Your task to perform on an android device: uninstall "Google Home" Image 0: 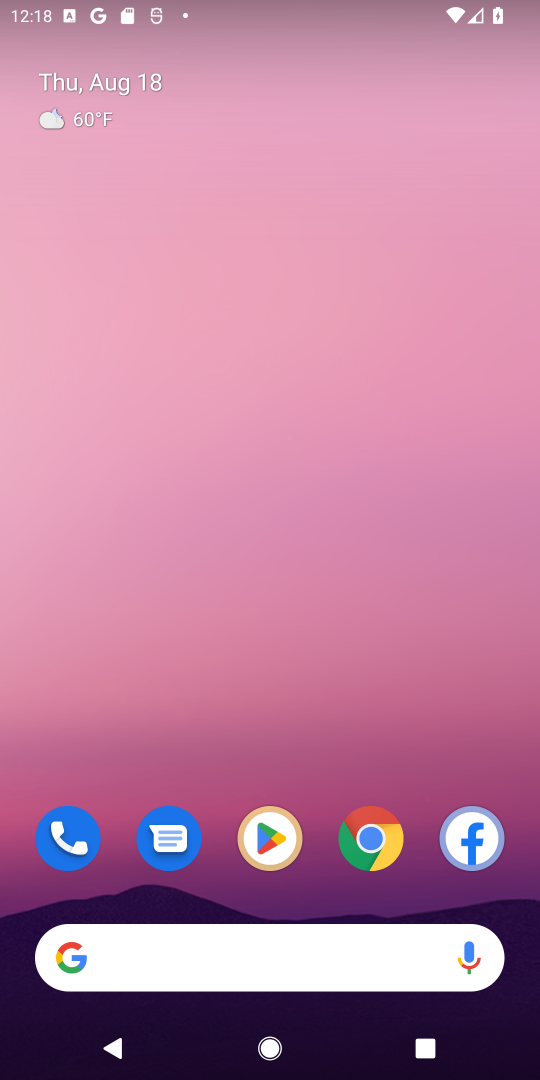
Step 0: click (271, 830)
Your task to perform on an android device: uninstall "Google Home" Image 1: 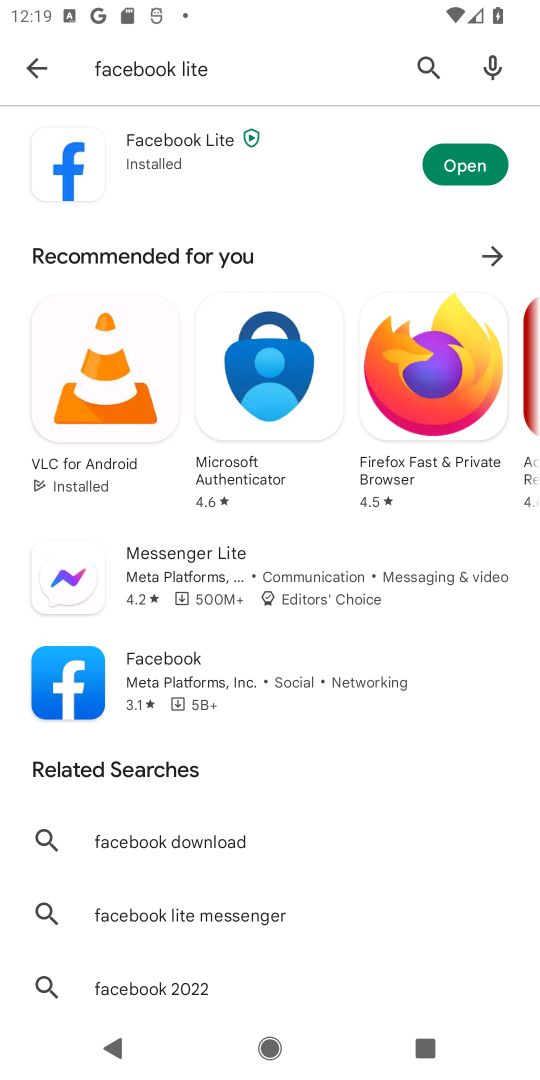
Step 1: click (420, 75)
Your task to perform on an android device: uninstall "Google Home" Image 2: 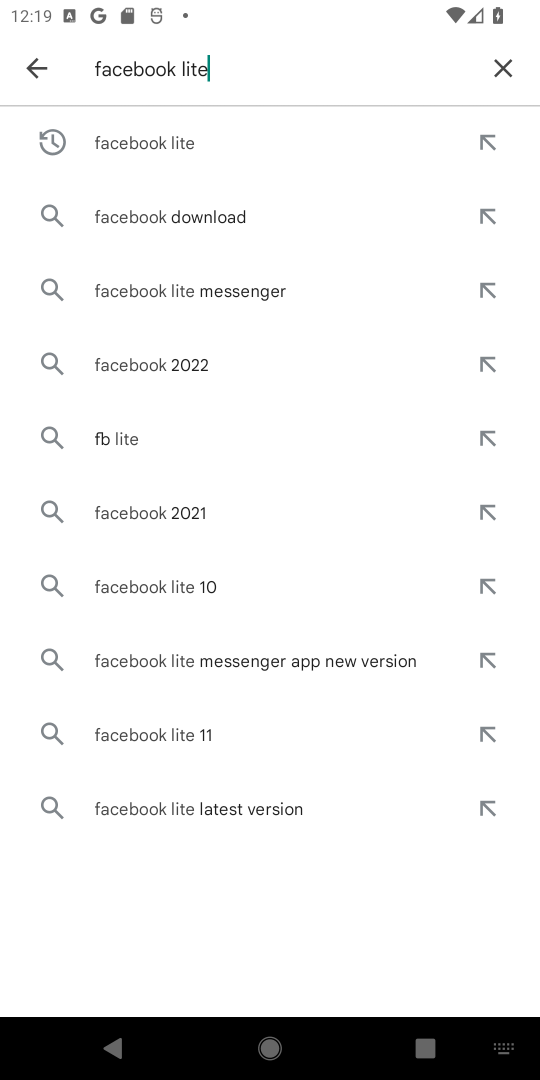
Step 2: click (491, 67)
Your task to perform on an android device: uninstall "Google Home" Image 3: 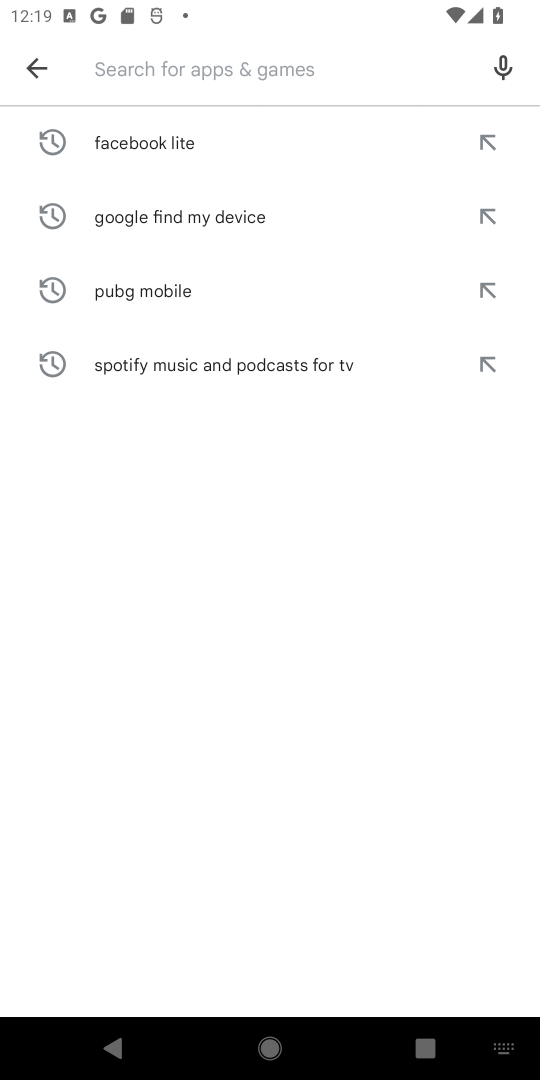
Step 3: type "Google Home"
Your task to perform on an android device: uninstall "Google Home" Image 4: 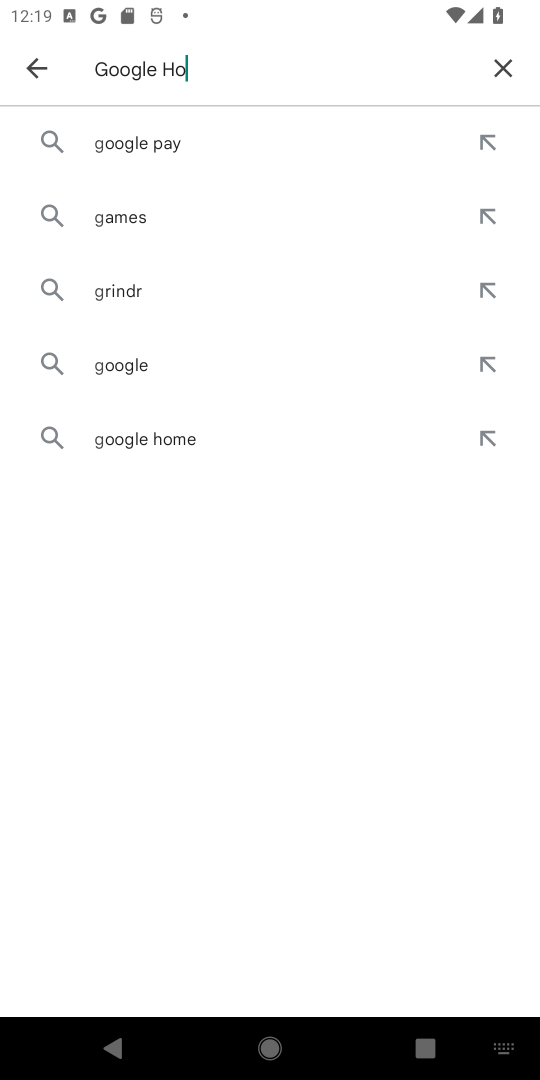
Step 4: type ""
Your task to perform on an android device: uninstall "Google Home" Image 5: 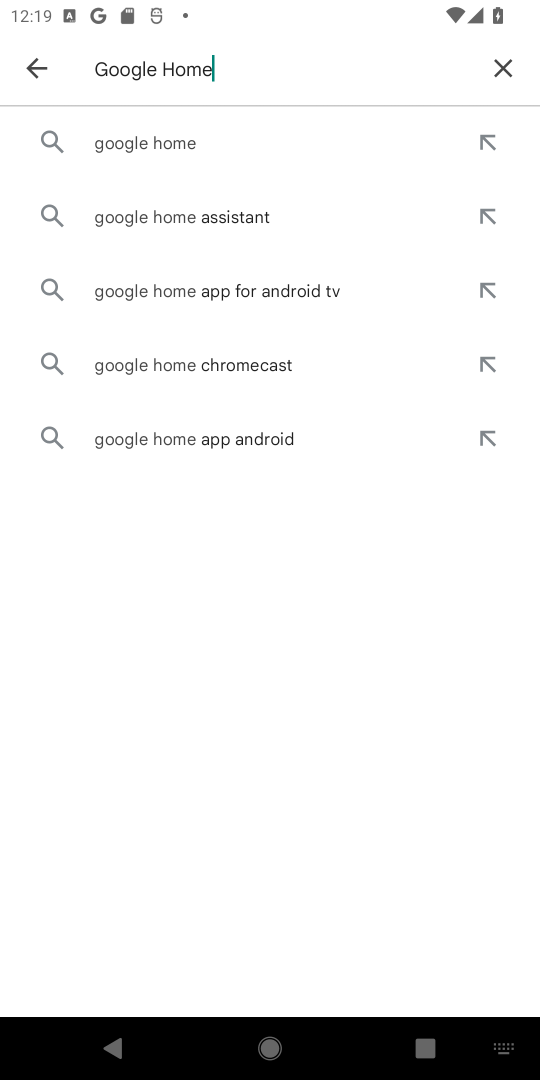
Step 5: click (210, 139)
Your task to perform on an android device: uninstall "Google Home" Image 6: 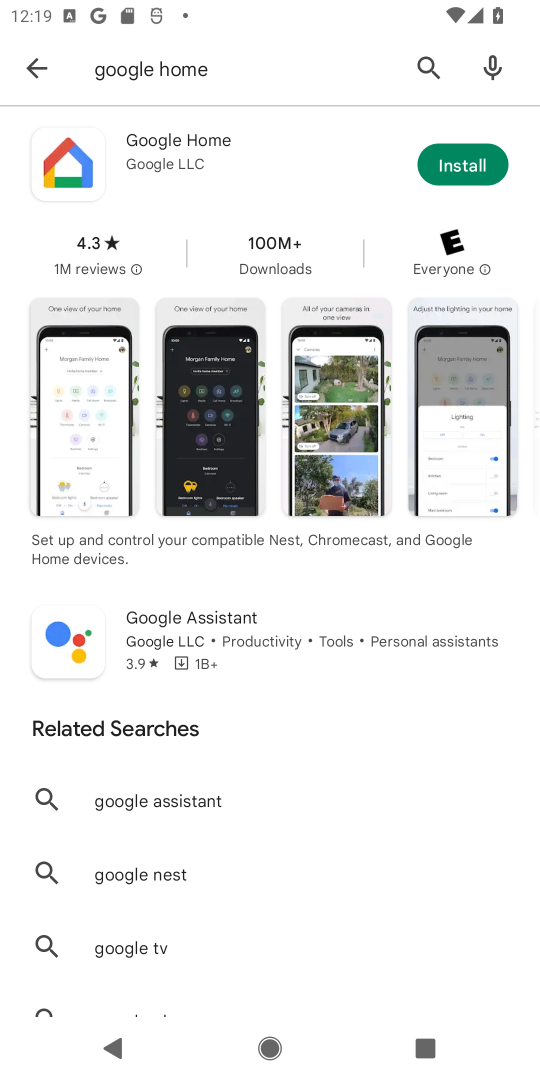
Step 6: task complete